Your task to perform on an android device: Open Amazon Image 0: 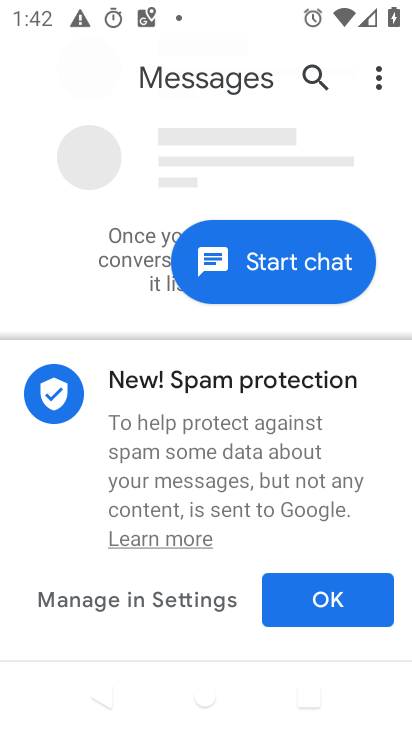
Step 0: press back button
Your task to perform on an android device: Open Amazon Image 1: 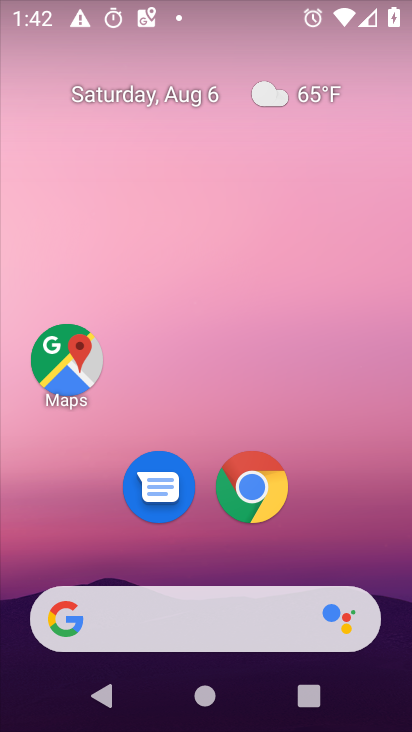
Step 1: click (249, 490)
Your task to perform on an android device: Open Amazon Image 2: 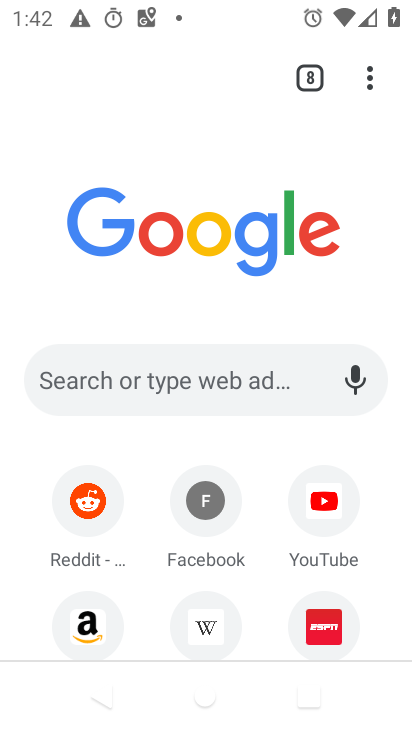
Step 2: click (97, 627)
Your task to perform on an android device: Open Amazon Image 3: 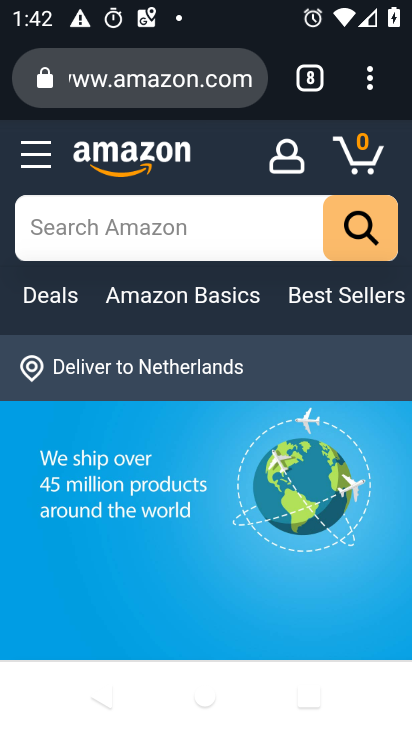
Step 3: task complete